Your task to perform on an android device: turn on bluetooth scan Image 0: 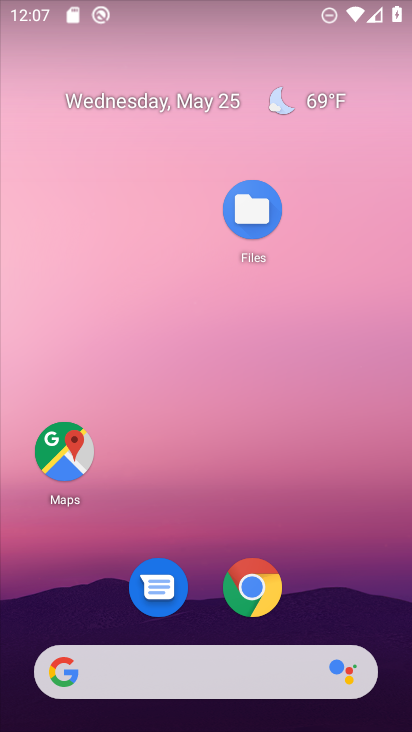
Step 0: drag from (315, 589) to (293, 58)
Your task to perform on an android device: turn on bluetooth scan Image 1: 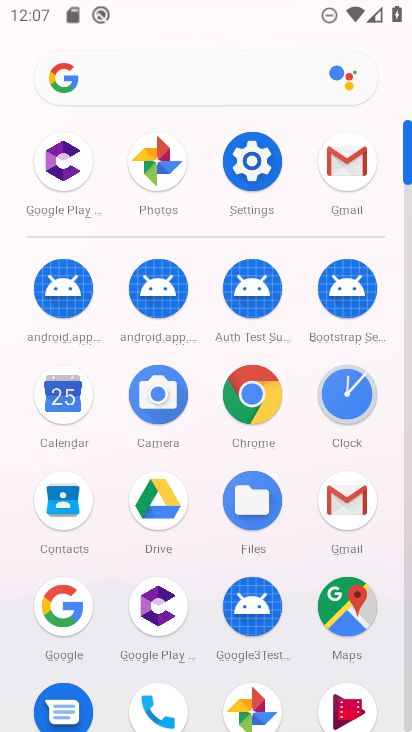
Step 1: click (250, 173)
Your task to perform on an android device: turn on bluetooth scan Image 2: 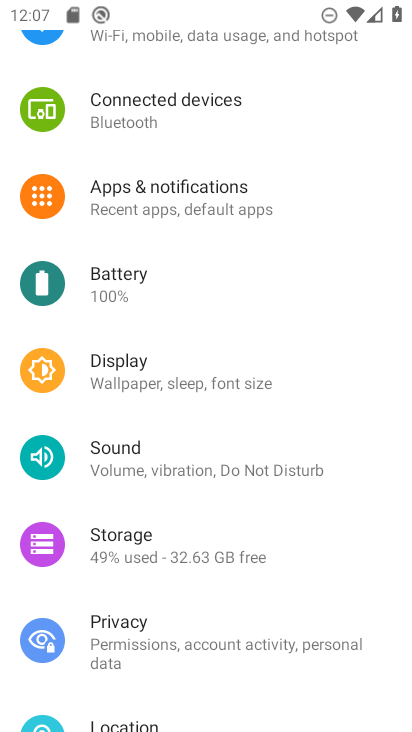
Step 2: click (103, 728)
Your task to perform on an android device: turn on bluetooth scan Image 3: 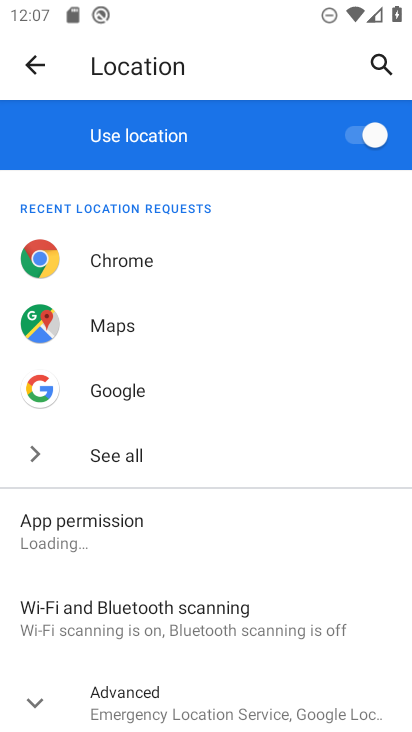
Step 3: click (209, 634)
Your task to perform on an android device: turn on bluetooth scan Image 4: 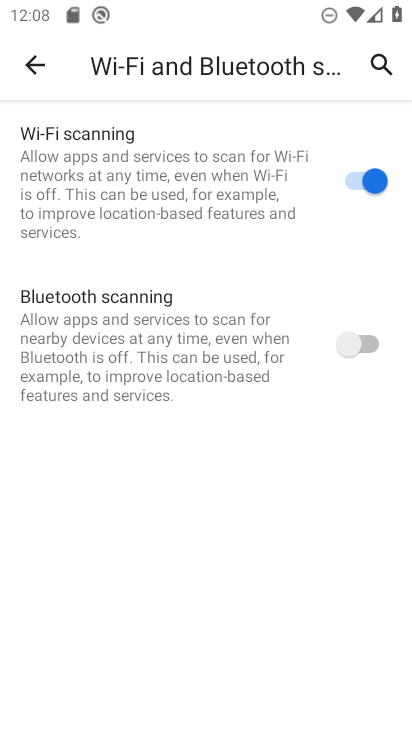
Step 4: click (349, 349)
Your task to perform on an android device: turn on bluetooth scan Image 5: 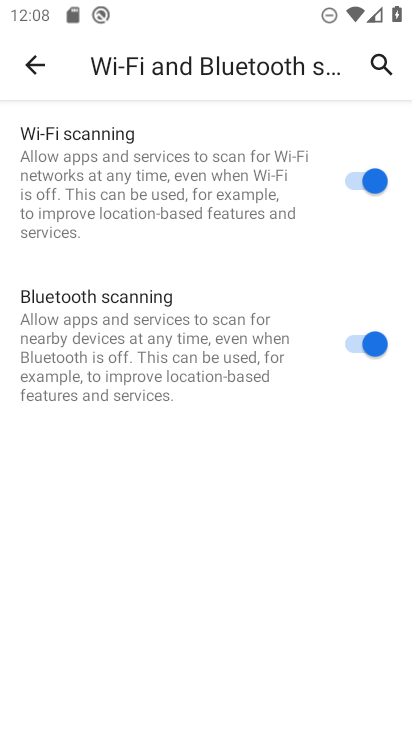
Step 5: task complete